Your task to perform on an android device: Open Google Maps and go to "Timeline" Image 0: 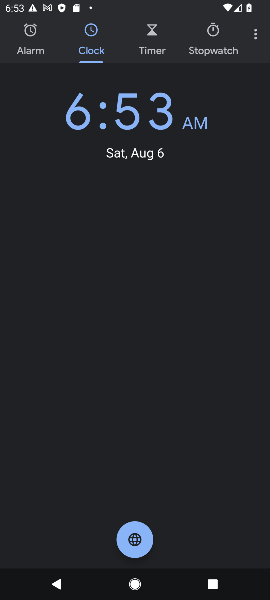
Step 0: press home button
Your task to perform on an android device: Open Google Maps and go to "Timeline" Image 1: 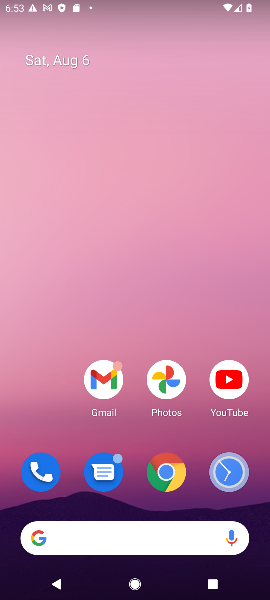
Step 1: drag from (195, 500) to (192, 85)
Your task to perform on an android device: Open Google Maps and go to "Timeline" Image 2: 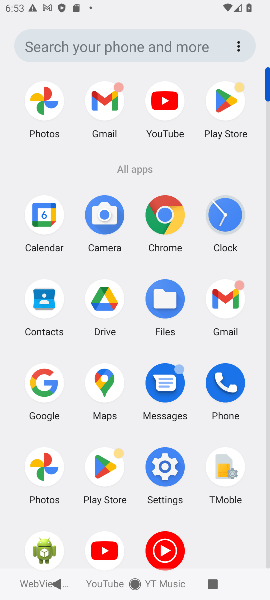
Step 2: click (103, 377)
Your task to perform on an android device: Open Google Maps and go to "Timeline" Image 3: 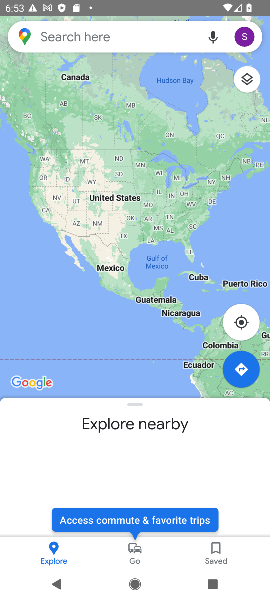
Step 3: click (212, 546)
Your task to perform on an android device: Open Google Maps and go to "Timeline" Image 4: 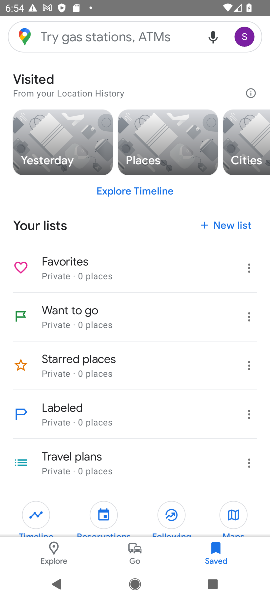
Step 4: task complete